Your task to perform on an android device: Search for pizza restaurants on Maps Image 0: 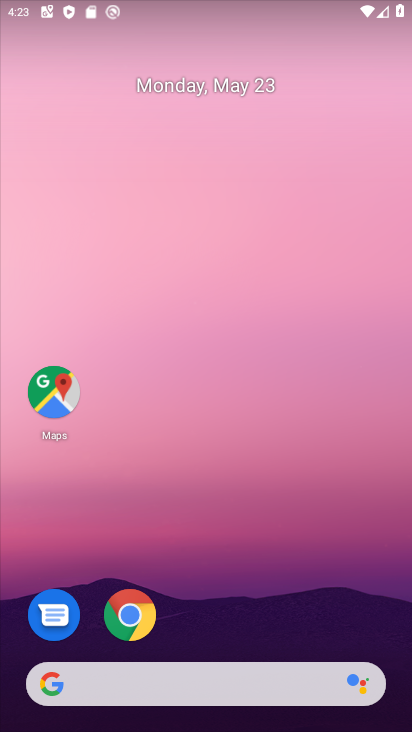
Step 0: click (28, 387)
Your task to perform on an android device: Search for pizza restaurants on Maps Image 1: 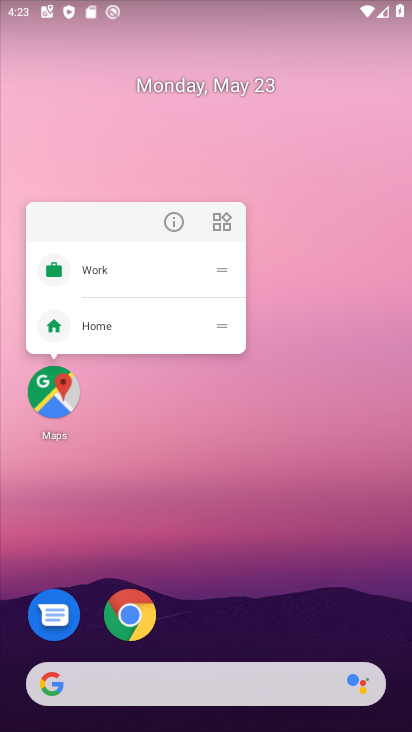
Step 1: click (48, 390)
Your task to perform on an android device: Search for pizza restaurants on Maps Image 2: 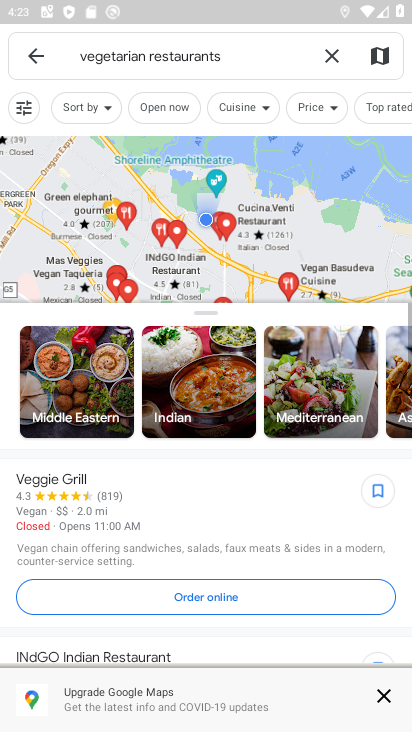
Step 2: click (330, 56)
Your task to perform on an android device: Search for pizza restaurants on Maps Image 3: 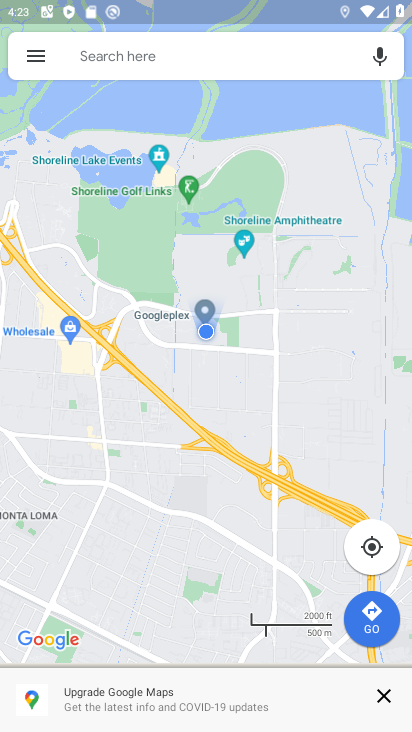
Step 3: click (176, 52)
Your task to perform on an android device: Search for pizza restaurants on Maps Image 4: 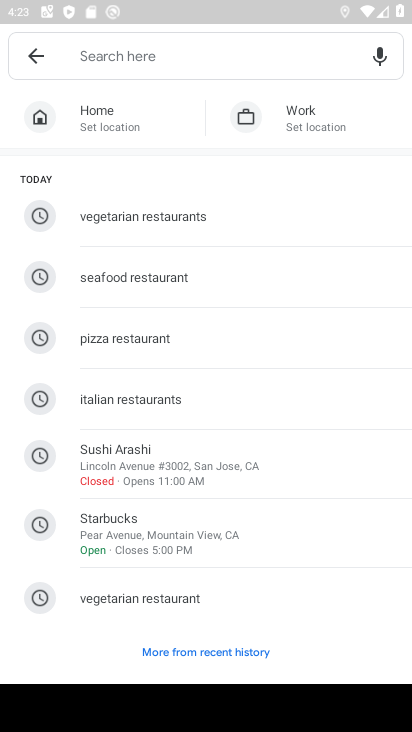
Step 4: click (128, 331)
Your task to perform on an android device: Search for pizza restaurants on Maps Image 5: 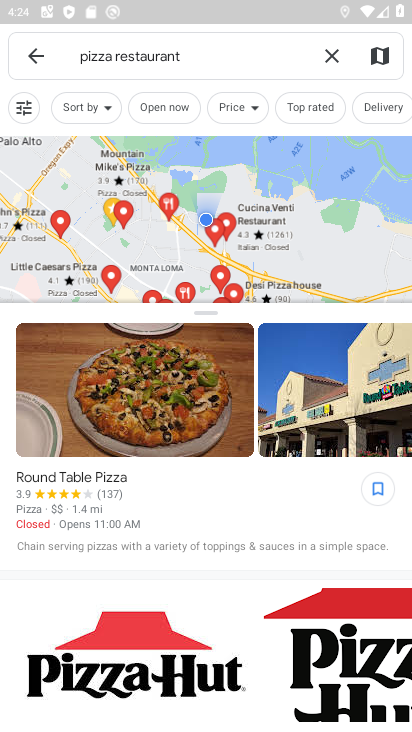
Step 5: task complete